Your task to perform on an android device: empty trash in google photos Image 0: 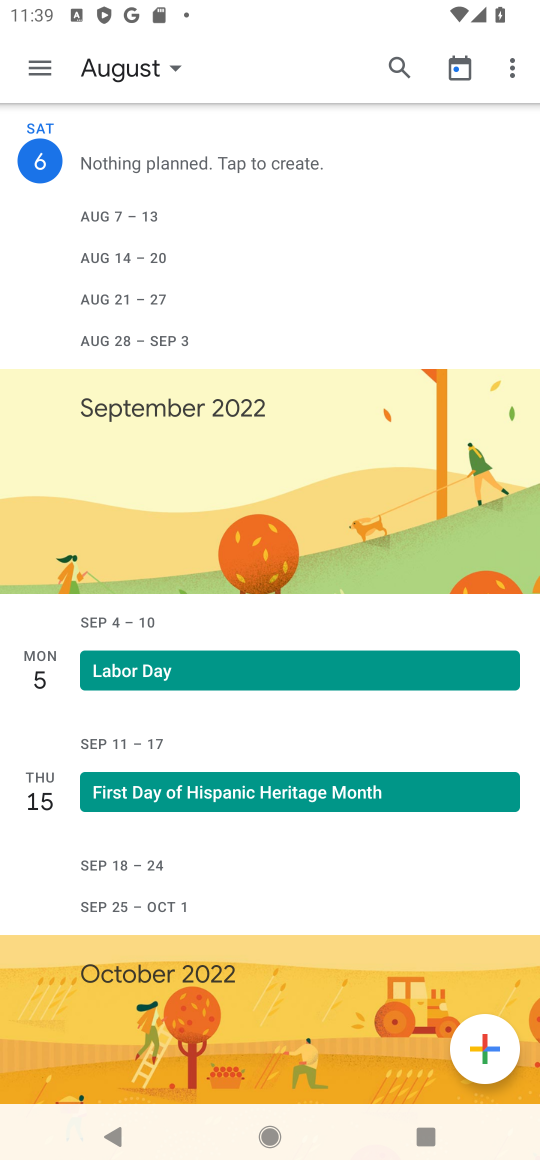
Step 0: press home button
Your task to perform on an android device: empty trash in google photos Image 1: 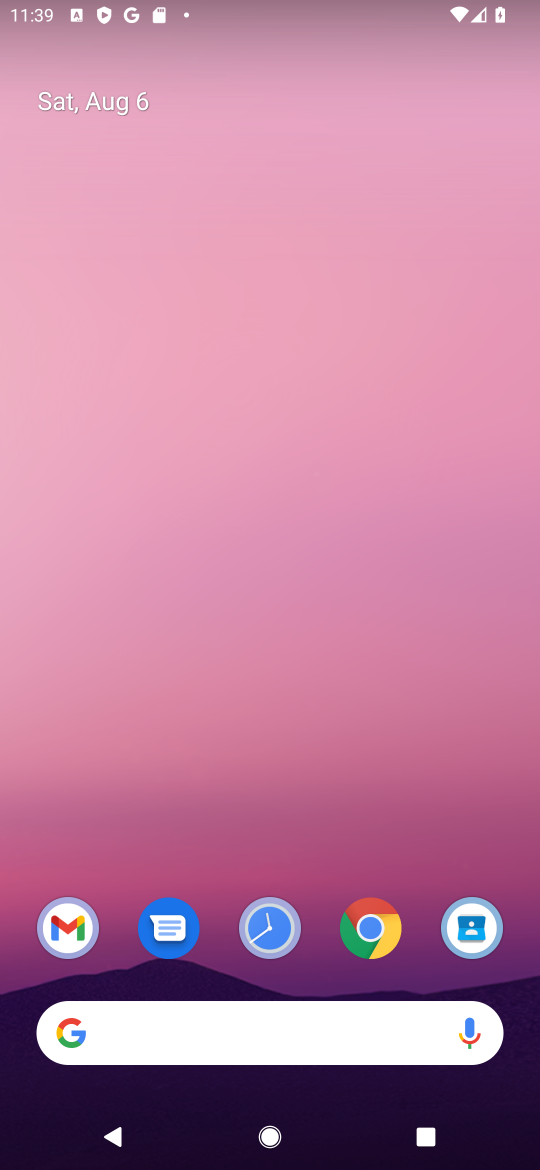
Step 1: drag from (146, 823) to (173, 64)
Your task to perform on an android device: empty trash in google photos Image 2: 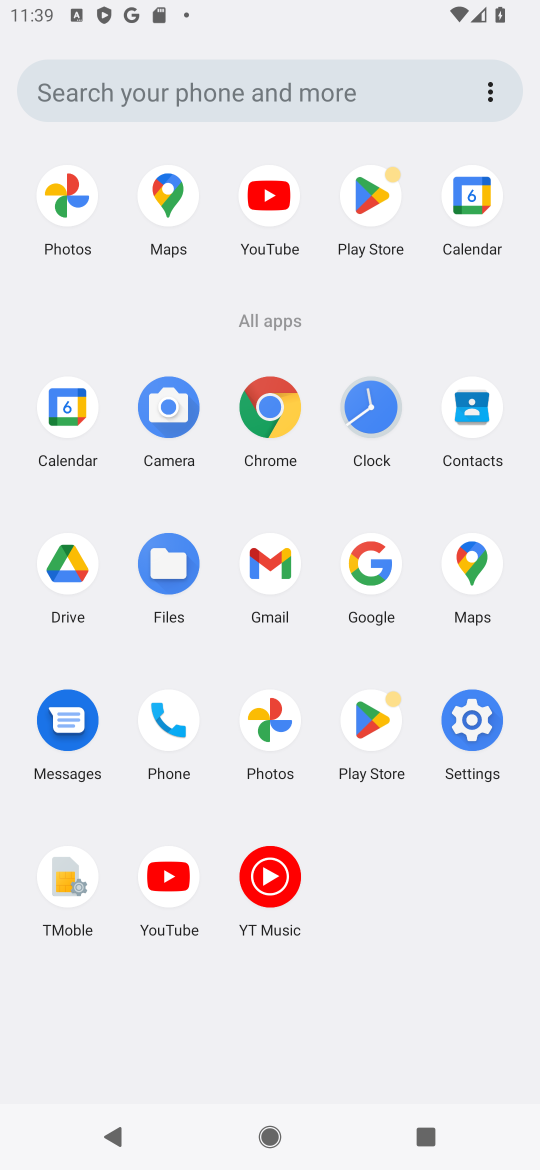
Step 2: click (266, 738)
Your task to perform on an android device: empty trash in google photos Image 3: 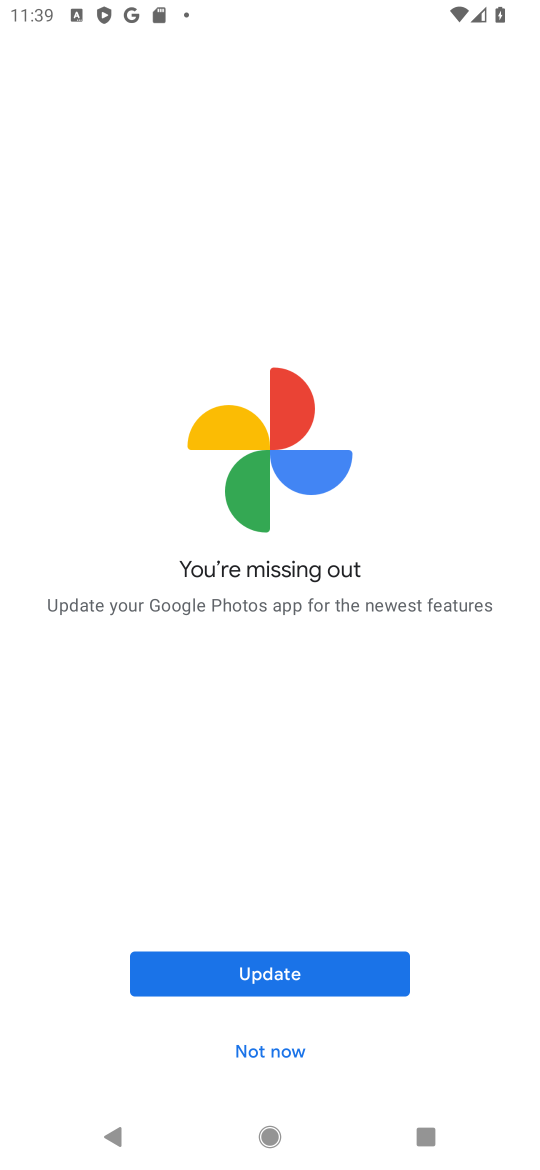
Step 3: click (251, 1051)
Your task to perform on an android device: empty trash in google photos Image 4: 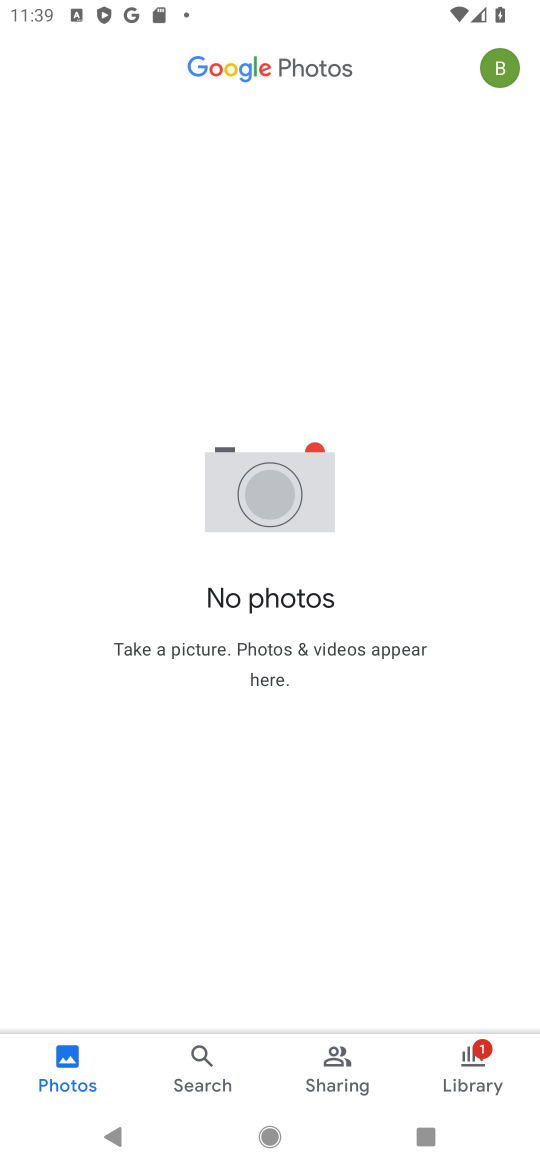
Step 4: click (461, 1077)
Your task to perform on an android device: empty trash in google photos Image 5: 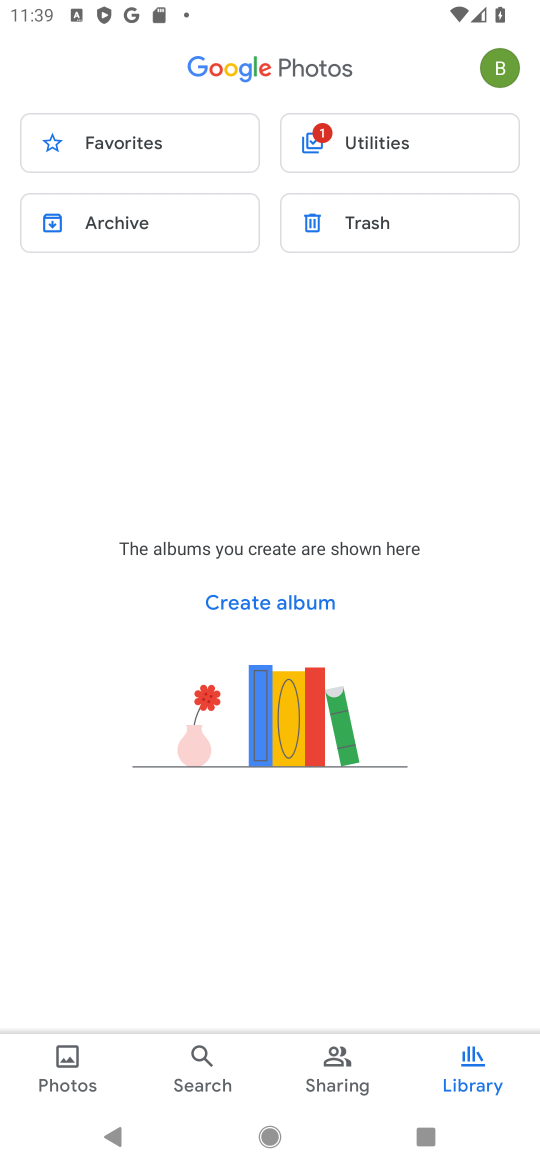
Step 5: click (334, 202)
Your task to perform on an android device: empty trash in google photos Image 6: 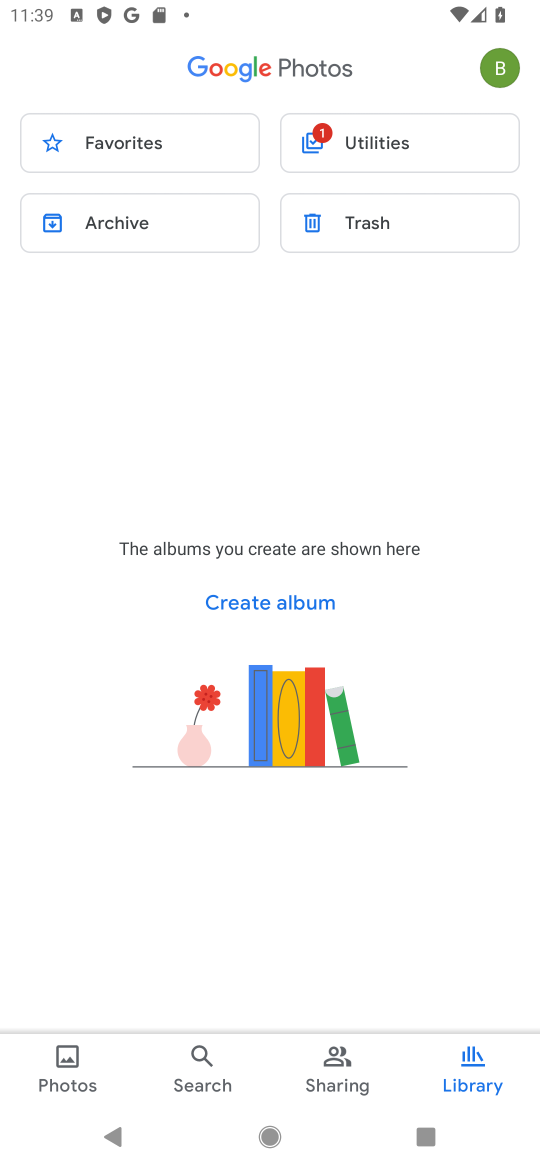
Step 6: click (334, 202)
Your task to perform on an android device: empty trash in google photos Image 7: 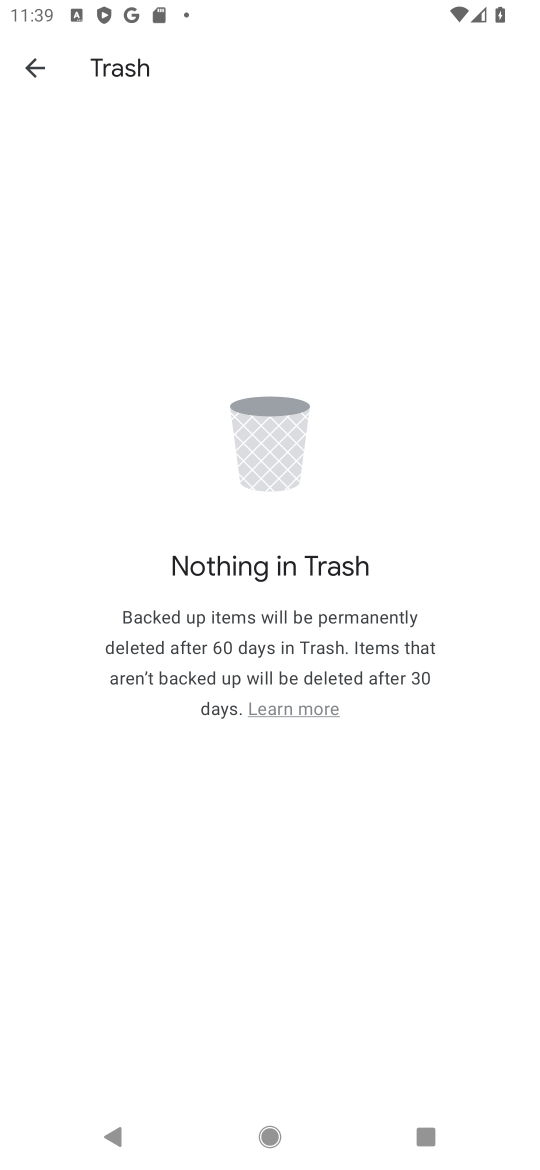
Step 7: click (337, 215)
Your task to perform on an android device: empty trash in google photos Image 8: 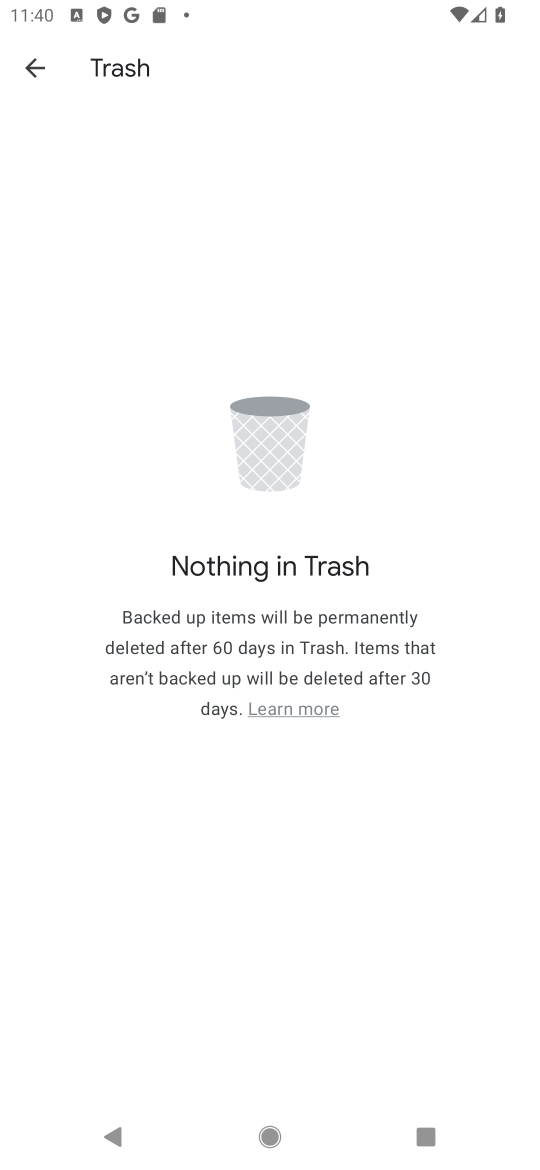
Step 8: task complete